Your task to perform on an android device: Open Chrome and go to settings Image 0: 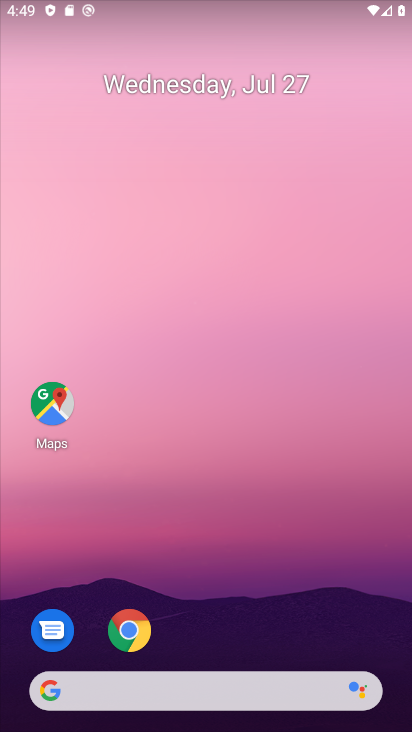
Step 0: click (144, 634)
Your task to perform on an android device: Open Chrome and go to settings Image 1: 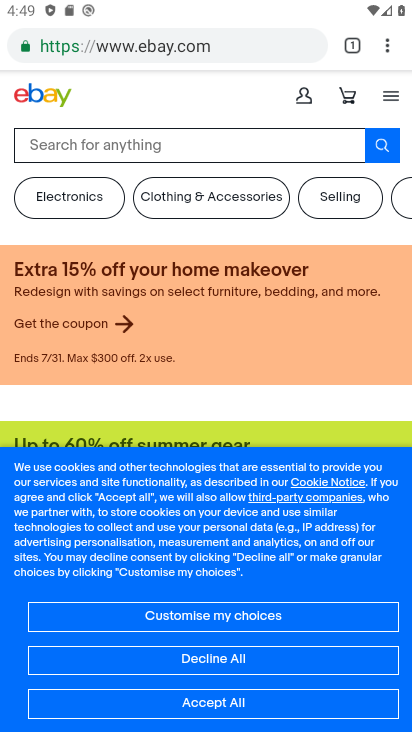
Step 1: click (385, 48)
Your task to perform on an android device: Open Chrome and go to settings Image 2: 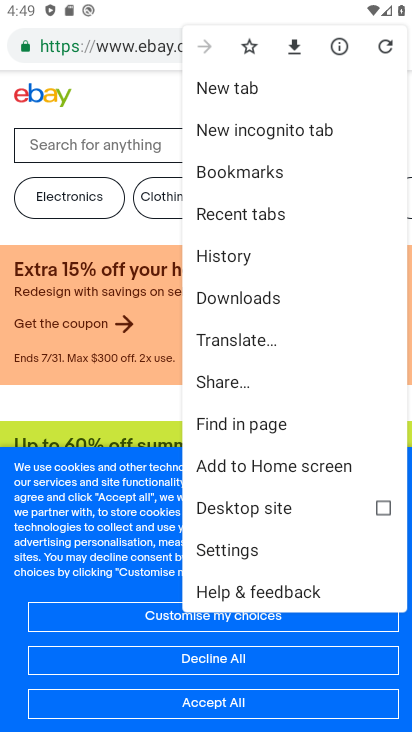
Step 2: click (250, 557)
Your task to perform on an android device: Open Chrome and go to settings Image 3: 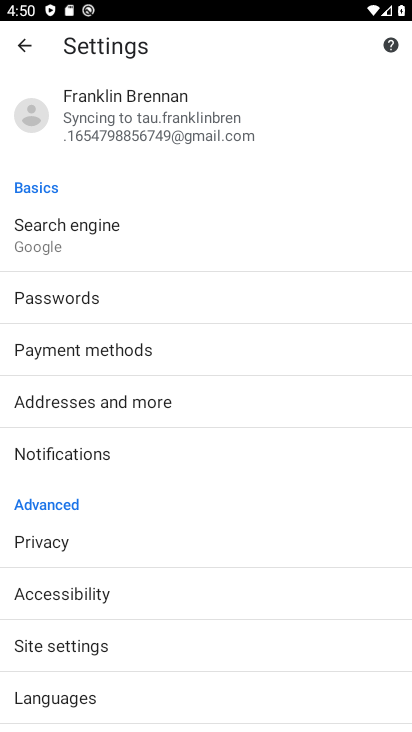
Step 3: task complete